Your task to perform on an android device: see creations saved in the google photos Image 0: 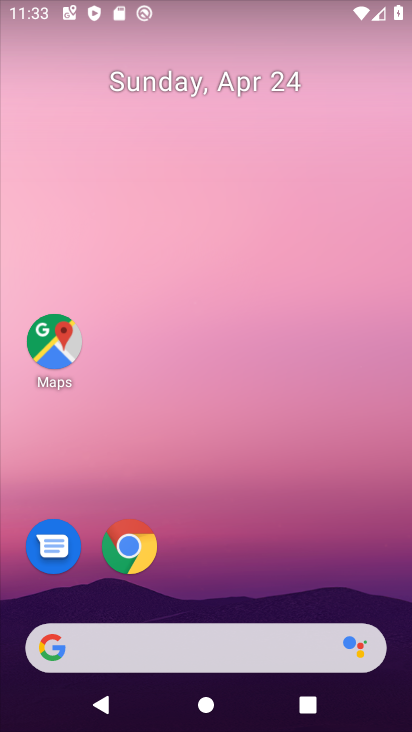
Step 0: drag from (220, 528) to (220, 179)
Your task to perform on an android device: see creations saved in the google photos Image 1: 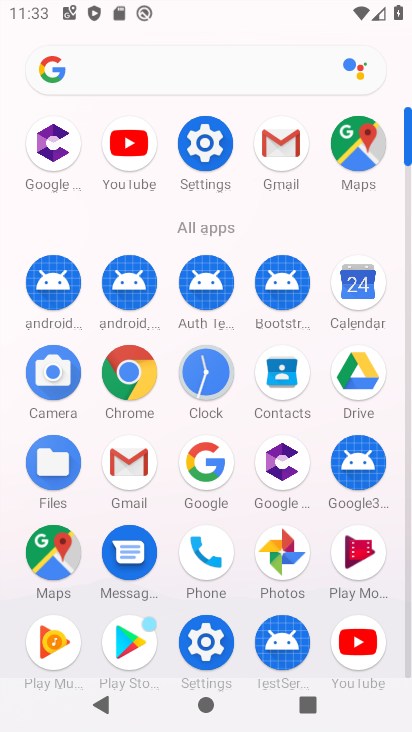
Step 1: click (286, 557)
Your task to perform on an android device: see creations saved in the google photos Image 2: 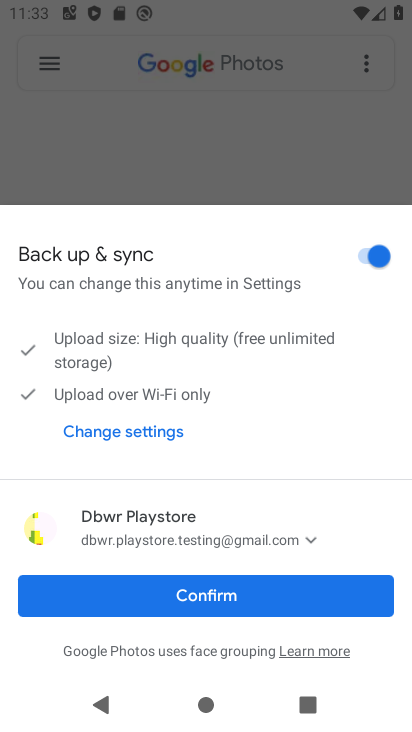
Step 2: click (191, 583)
Your task to perform on an android device: see creations saved in the google photos Image 3: 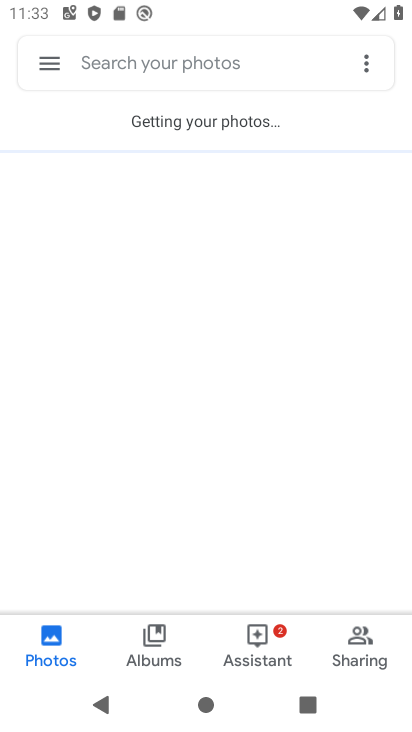
Step 3: click (152, 62)
Your task to perform on an android device: see creations saved in the google photos Image 4: 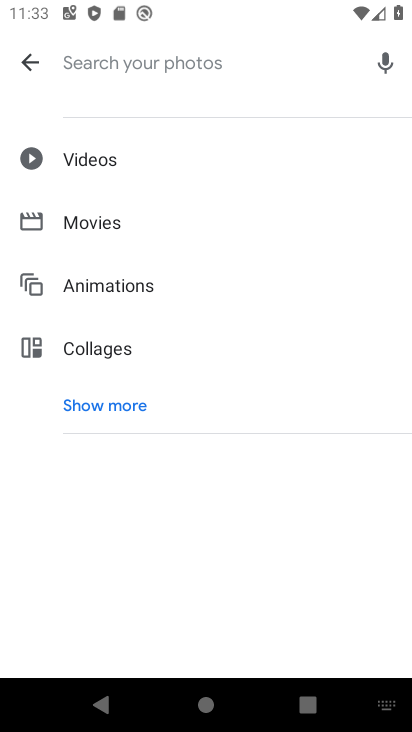
Step 4: click (120, 405)
Your task to perform on an android device: see creations saved in the google photos Image 5: 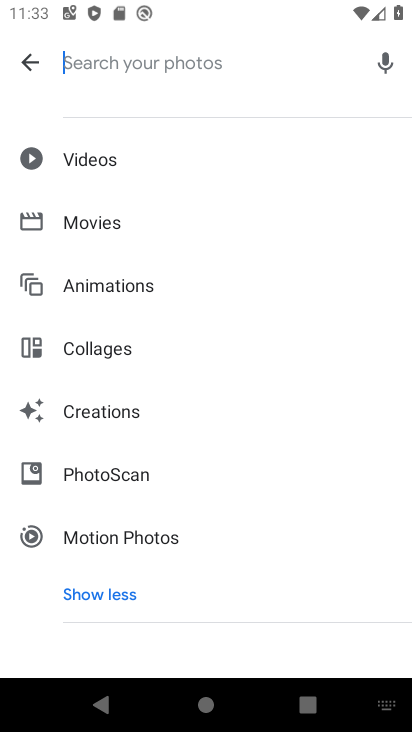
Step 5: click (120, 405)
Your task to perform on an android device: see creations saved in the google photos Image 6: 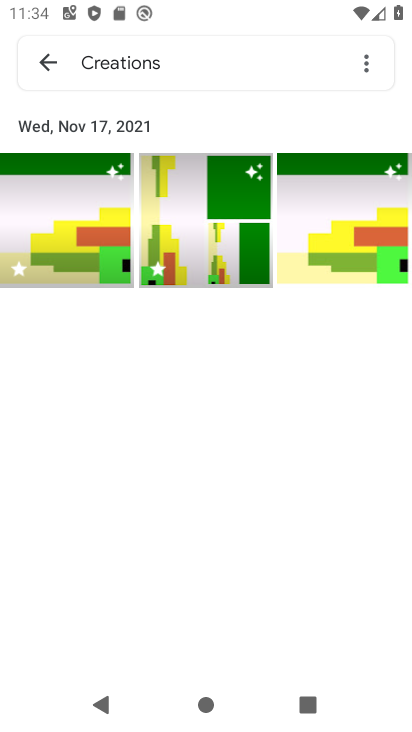
Step 6: task complete